Your task to perform on an android device: What's the weather going to be tomorrow? Image 0: 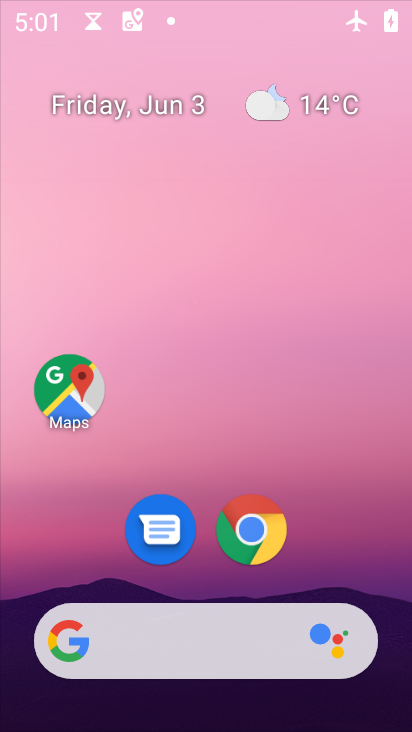
Step 0: click (376, 97)
Your task to perform on an android device: What's the weather going to be tomorrow? Image 1: 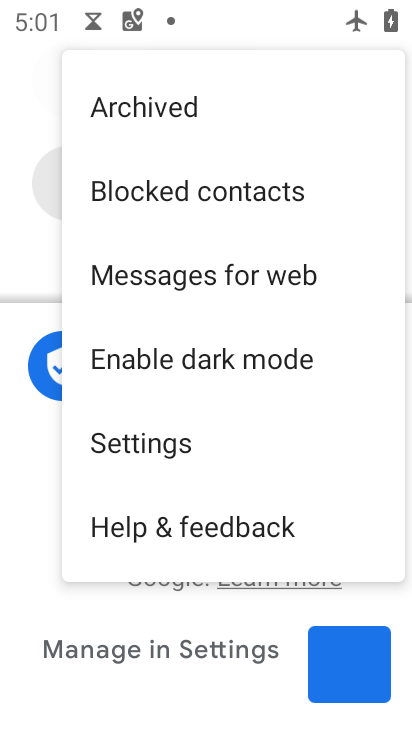
Step 1: press home button
Your task to perform on an android device: What's the weather going to be tomorrow? Image 2: 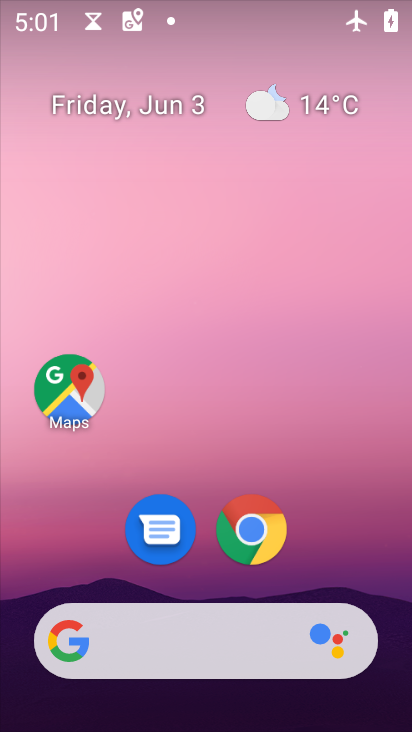
Step 2: click (325, 103)
Your task to perform on an android device: What's the weather going to be tomorrow? Image 3: 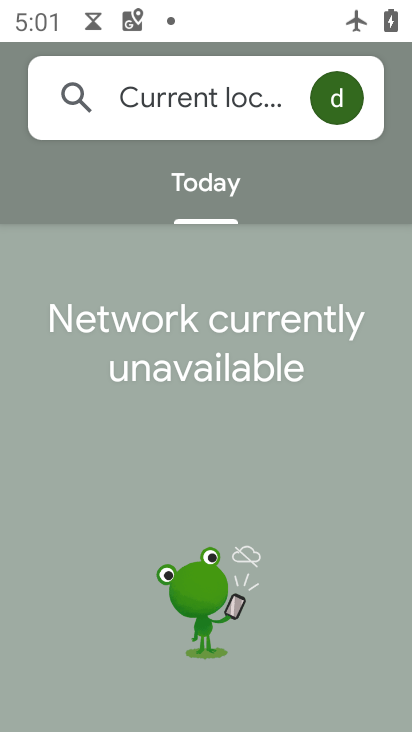
Step 3: task complete